Your task to perform on an android device: Go to Google maps Image 0: 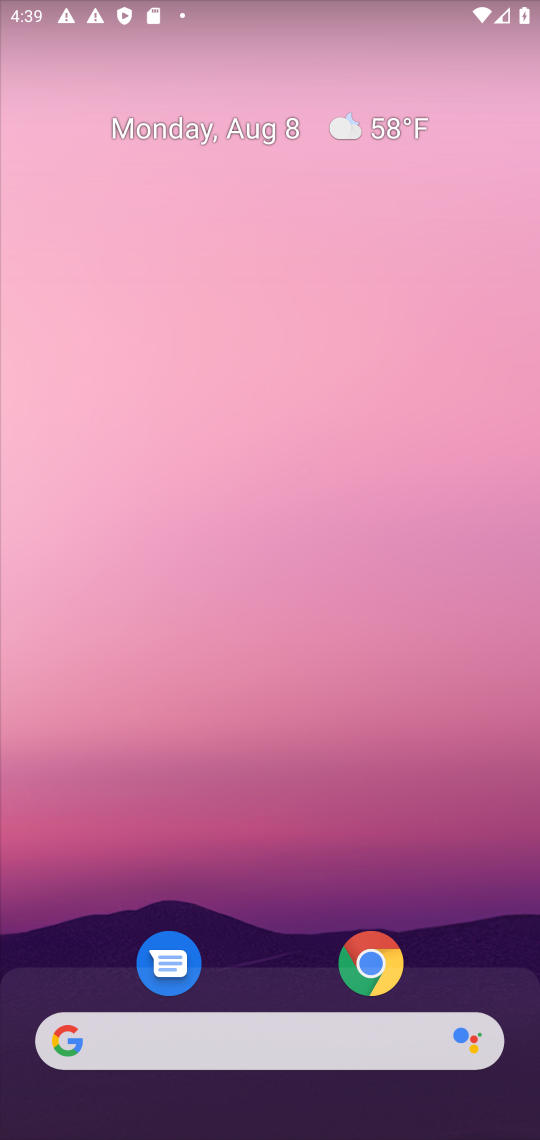
Step 0: drag from (329, 812) to (329, 216)
Your task to perform on an android device: Go to Google maps Image 1: 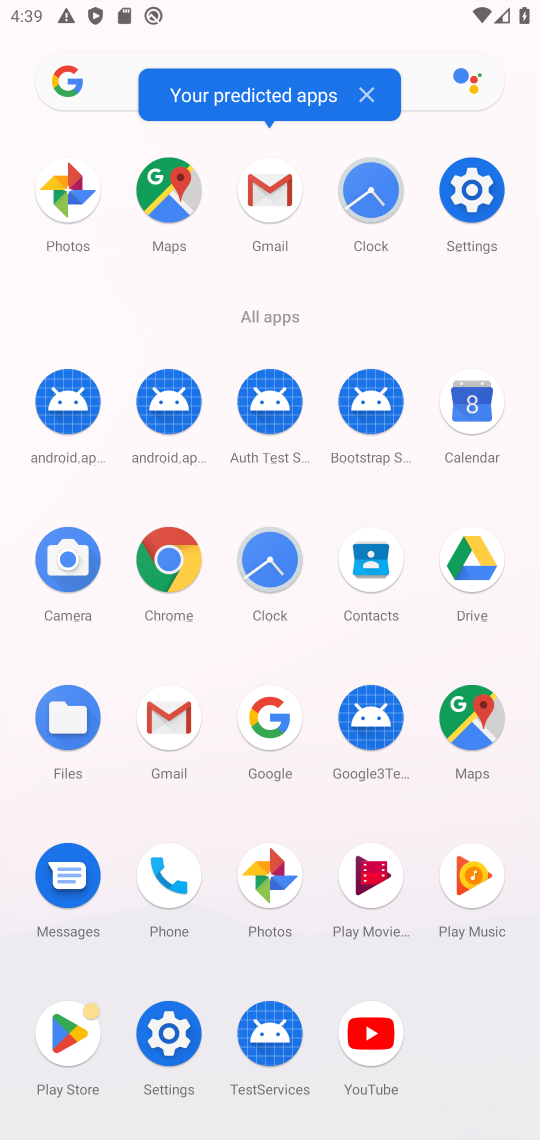
Step 1: drag from (213, 1010) to (213, 659)
Your task to perform on an android device: Go to Google maps Image 2: 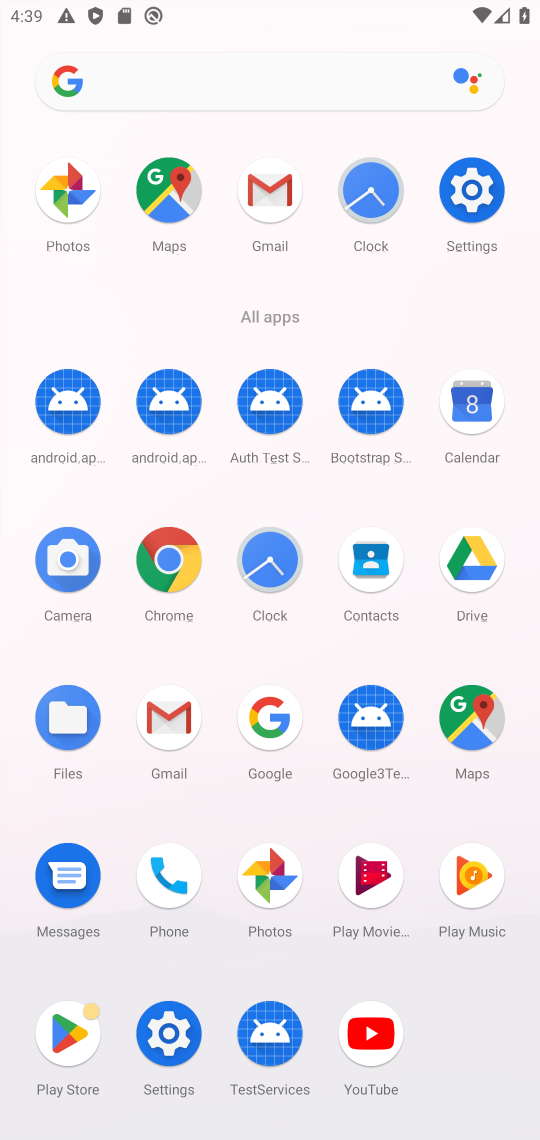
Step 2: click (480, 720)
Your task to perform on an android device: Go to Google maps Image 3: 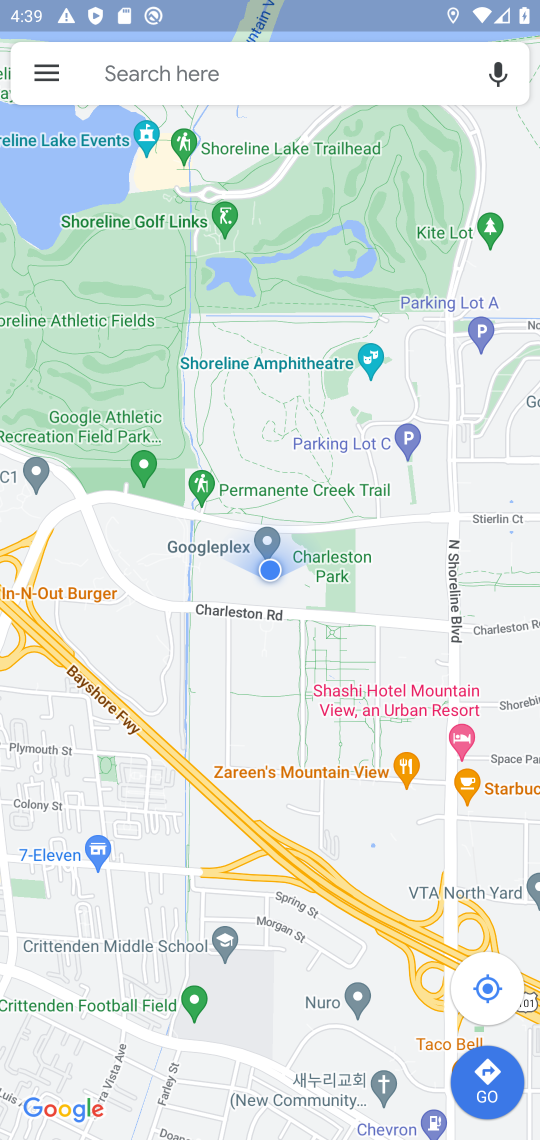
Step 3: task complete